Your task to perform on an android device: When is my next appointment? Image 0: 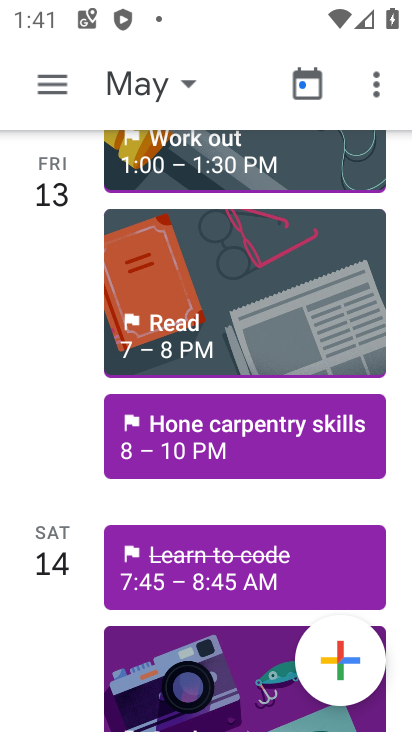
Step 0: drag from (183, 574) to (268, 176)
Your task to perform on an android device: When is my next appointment? Image 1: 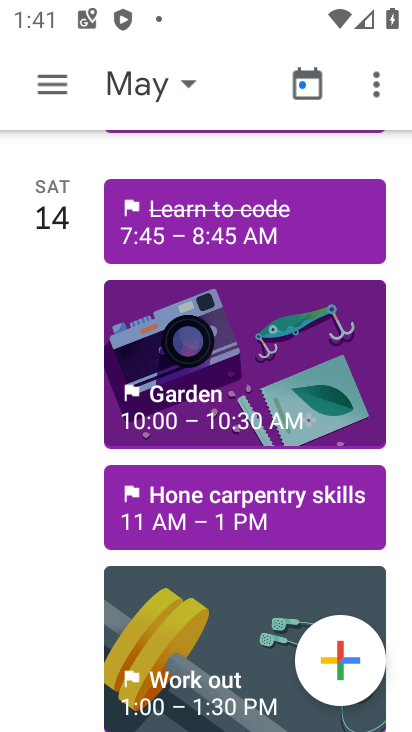
Step 1: click (160, 87)
Your task to perform on an android device: When is my next appointment? Image 2: 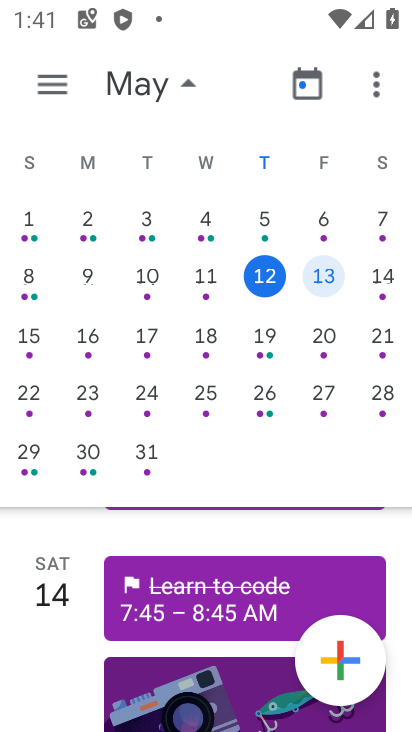
Step 2: click (268, 278)
Your task to perform on an android device: When is my next appointment? Image 3: 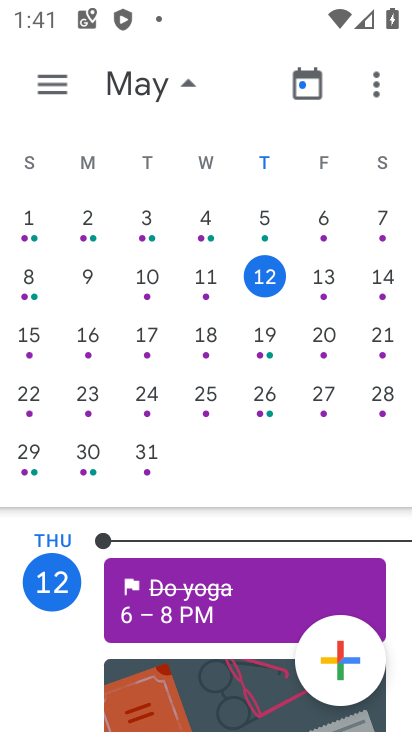
Step 3: drag from (181, 615) to (238, 212)
Your task to perform on an android device: When is my next appointment? Image 4: 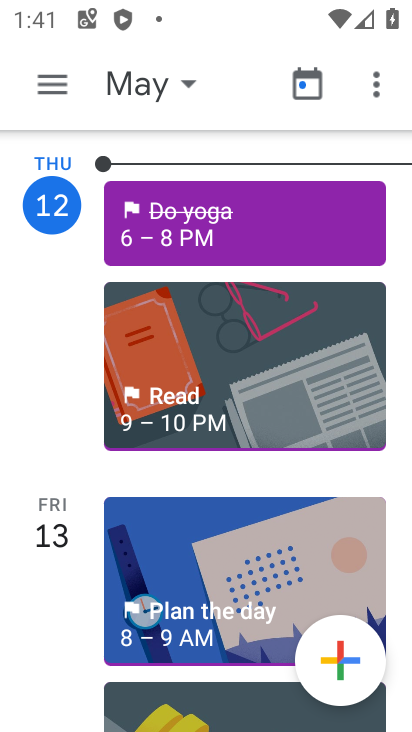
Step 4: drag from (282, 488) to (282, 371)
Your task to perform on an android device: When is my next appointment? Image 5: 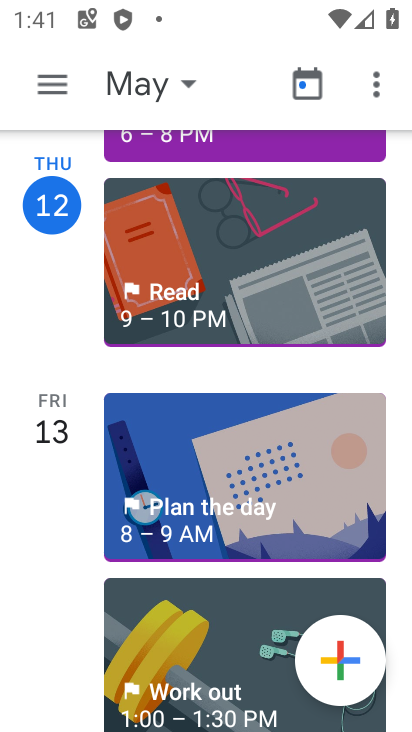
Step 5: click (242, 286)
Your task to perform on an android device: When is my next appointment? Image 6: 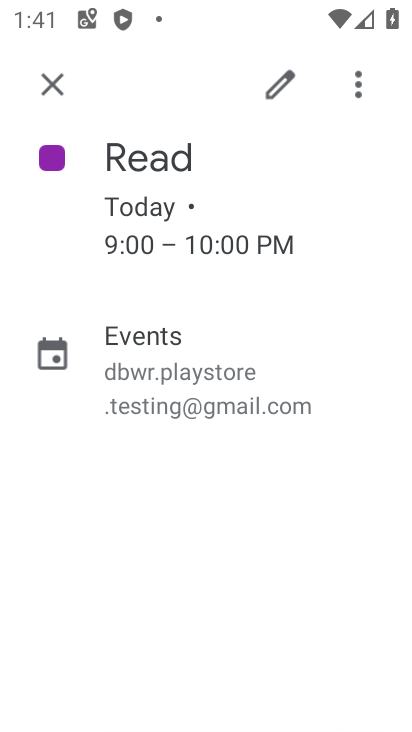
Step 6: task complete